Your task to perform on an android device: change alarm snooze length Image 0: 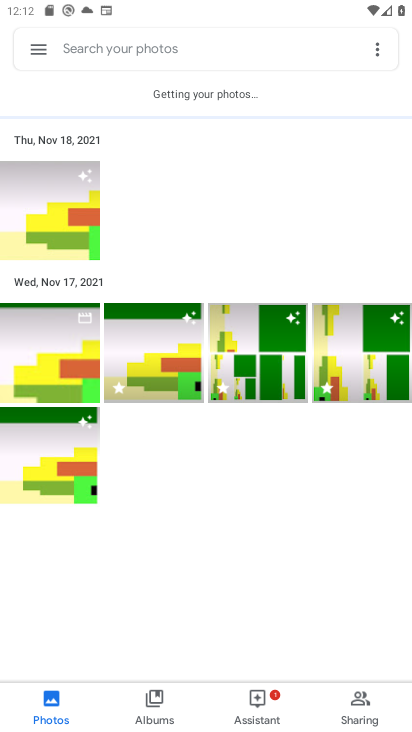
Step 0: press home button
Your task to perform on an android device: change alarm snooze length Image 1: 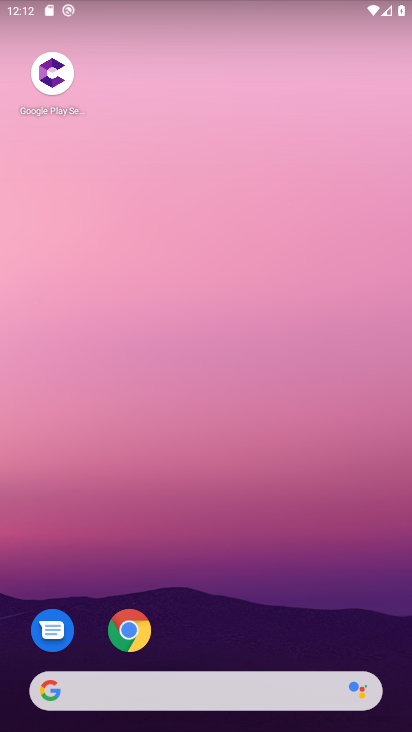
Step 1: drag from (288, 532) to (217, 43)
Your task to perform on an android device: change alarm snooze length Image 2: 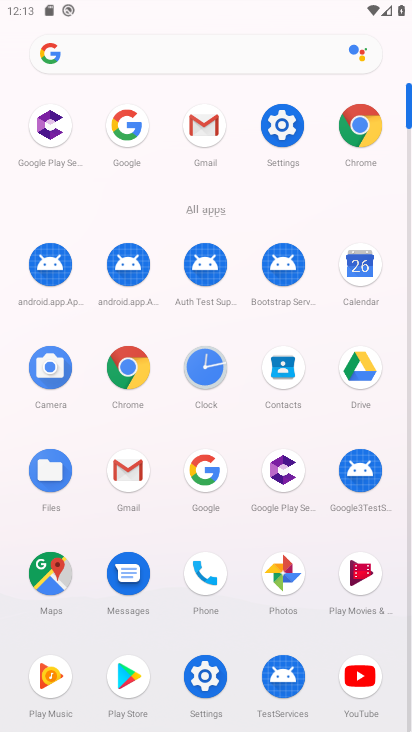
Step 2: click (201, 358)
Your task to perform on an android device: change alarm snooze length Image 3: 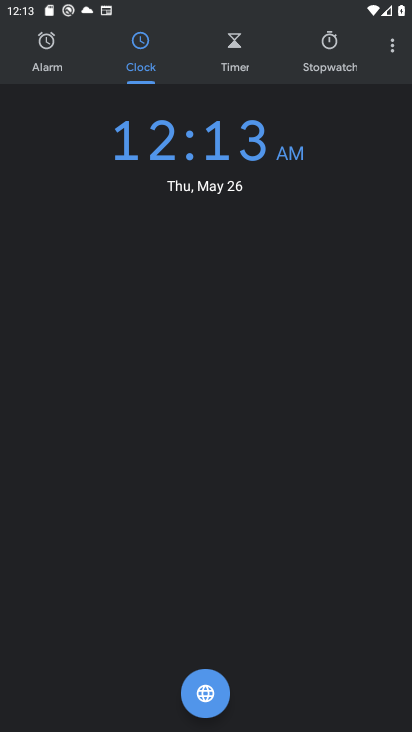
Step 3: click (399, 51)
Your task to perform on an android device: change alarm snooze length Image 4: 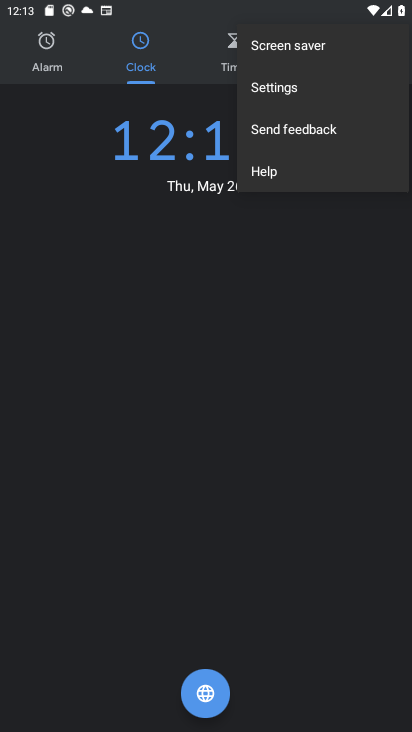
Step 4: click (295, 88)
Your task to perform on an android device: change alarm snooze length Image 5: 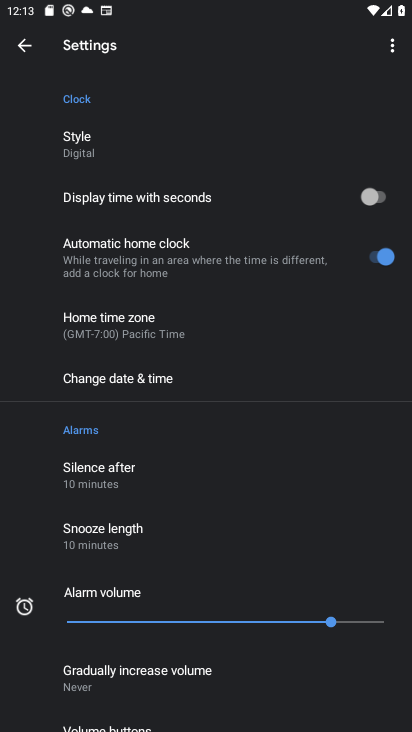
Step 5: click (86, 539)
Your task to perform on an android device: change alarm snooze length Image 6: 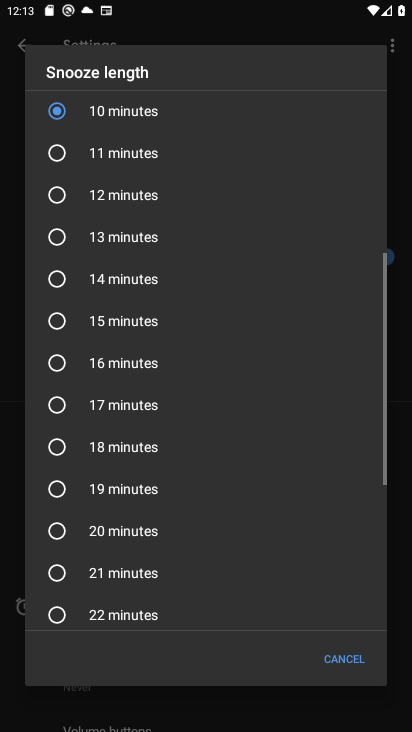
Step 6: click (106, 369)
Your task to perform on an android device: change alarm snooze length Image 7: 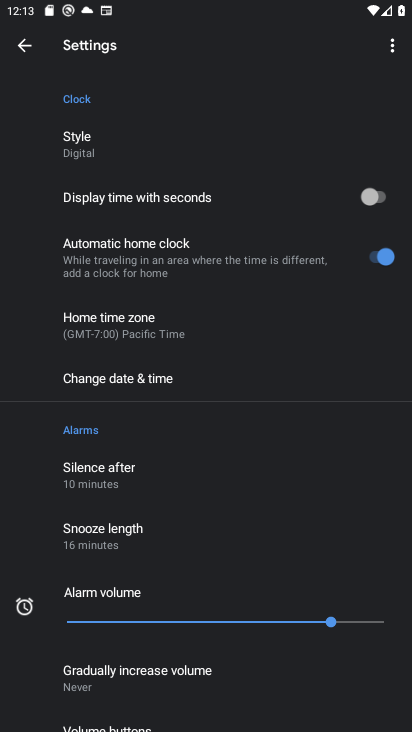
Step 7: task complete